Your task to perform on an android device: toggle data saver in the chrome app Image 0: 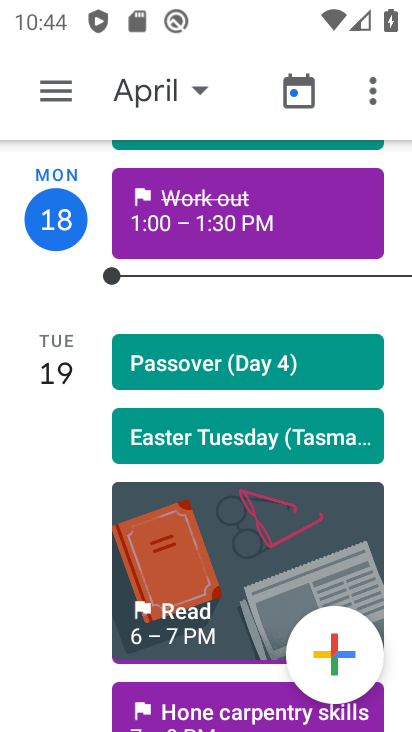
Step 0: press home button
Your task to perform on an android device: toggle data saver in the chrome app Image 1: 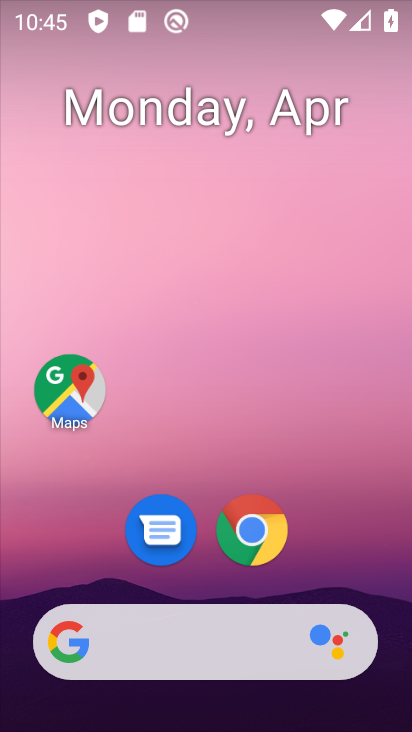
Step 1: drag from (335, 442) to (283, 69)
Your task to perform on an android device: toggle data saver in the chrome app Image 2: 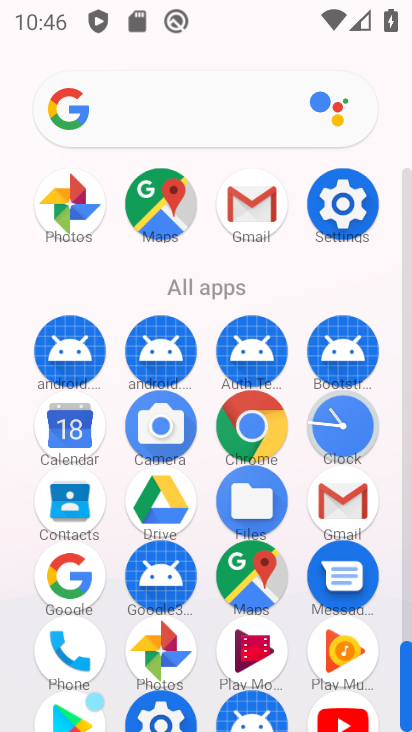
Step 2: click (242, 439)
Your task to perform on an android device: toggle data saver in the chrome app Image 3: 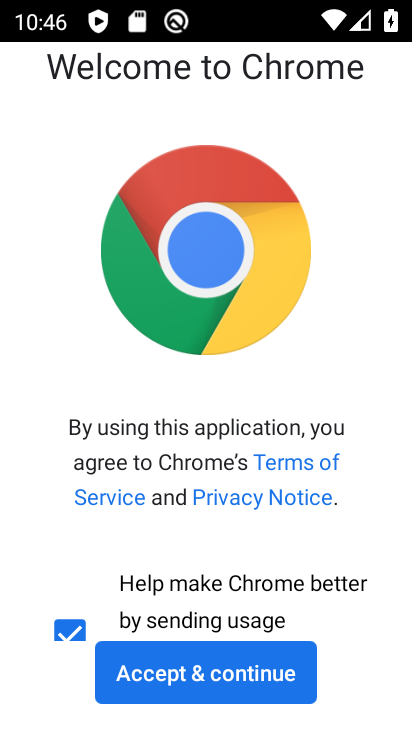
Step 3: click (211, 655)
Your task to perform on an android device: toggle data saver in the chrome app Image 4: 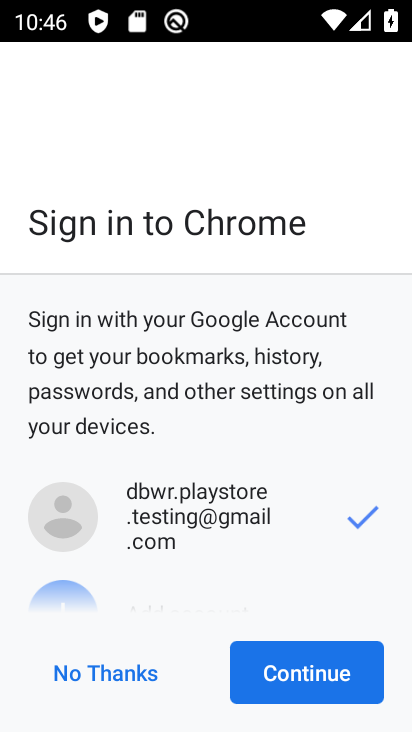
Step 4: click (267, 666)
Your task to perform on an android device: toggle data saver in the chrome app Image 5: 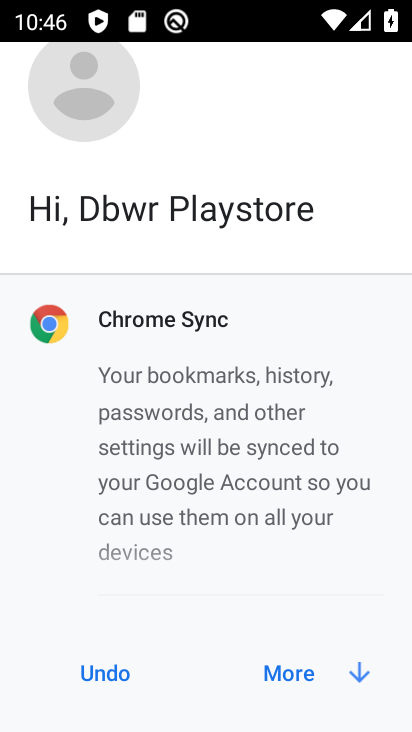
Step 5: click (267, 666)
Your task to perform on an android device: toggle data saver in the chrome app Image 6: 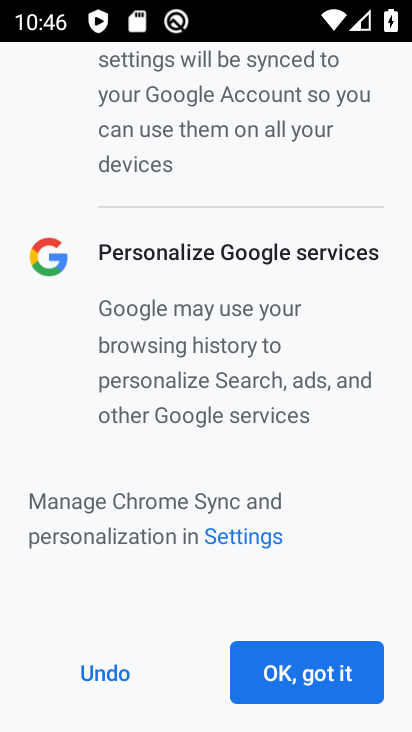
Step 6: click (267, 666)
Your task to perform on an android device: toggle data saver in the chrome app Image 7: 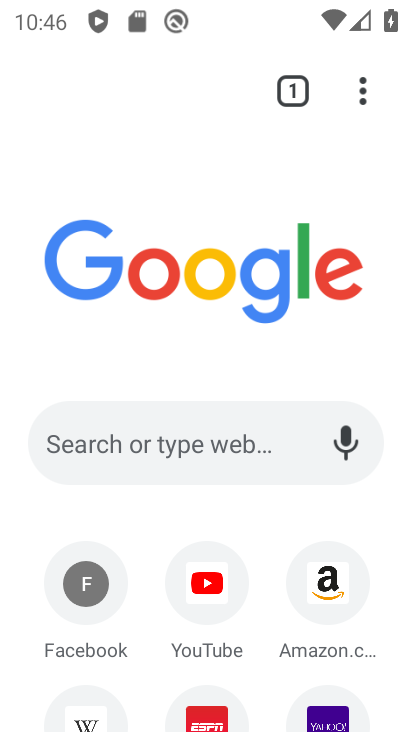
Step 7: click (357, 89)
Your task to perform on an android device: toggle data saver in the chrome app Image 8: 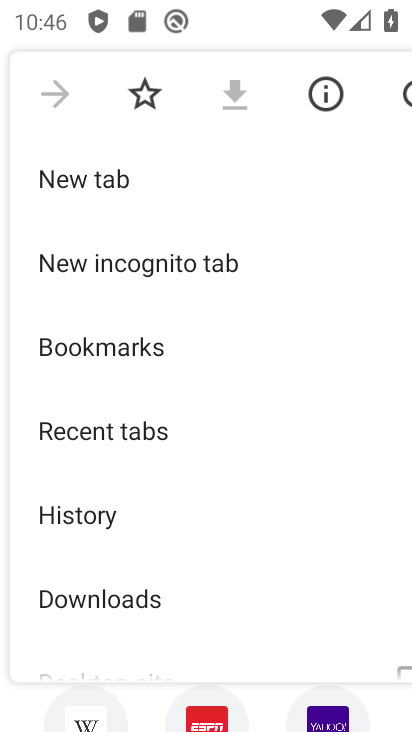
Step 8: drag from (146, 570) to (211, 189)
Your task to perform on an android device: toggle data saver in the chrome app Image 9: 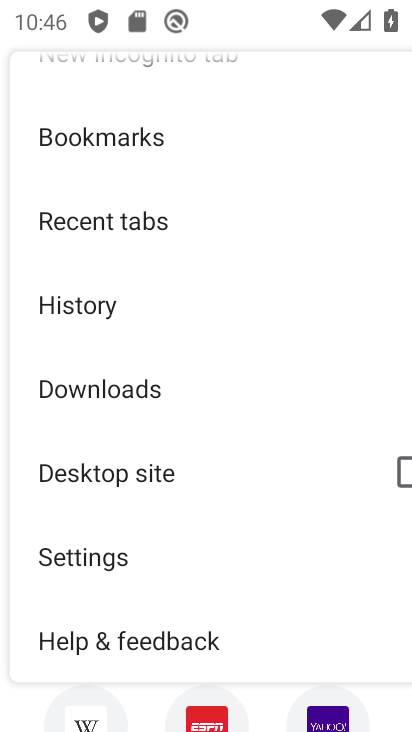
Step 9: click (188, 563)
Your task to perform on an android device: toggle data saver in the chrome app Image 10: 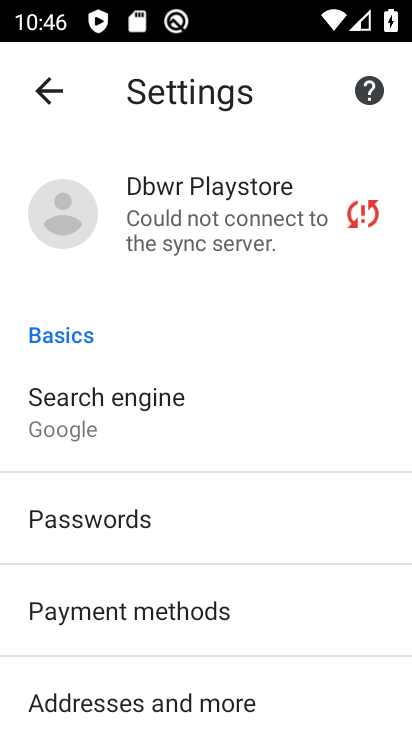
Step 10: drag from (222, 592) to (180, 164)
Your task to perform on an android device: toggle data saver in the chrome app Image 11: 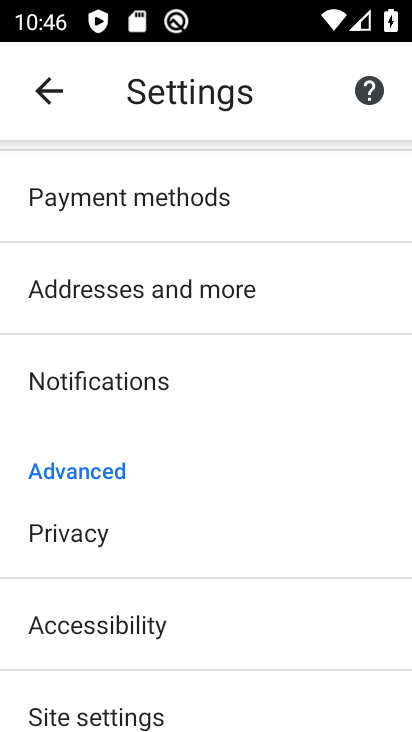
Step 11: drag from (165, 628) to (217, 233)
Your task to perform on an android device: toggle data saver in the chrome app Image 12: 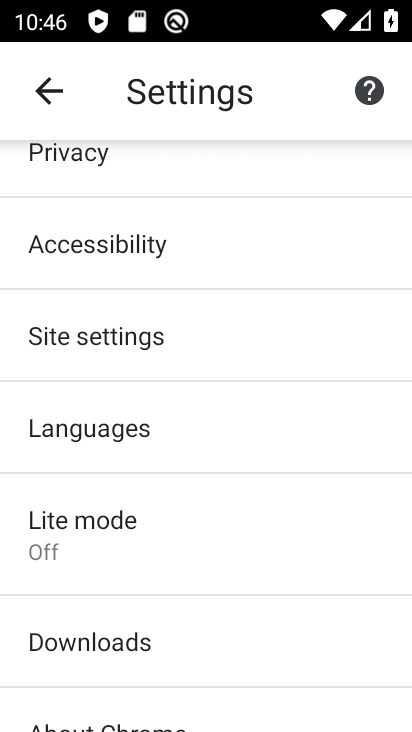
Step 12: click (211, 361)
Your task to perform on an android device: toggle data saver in the chrome app Image 13: 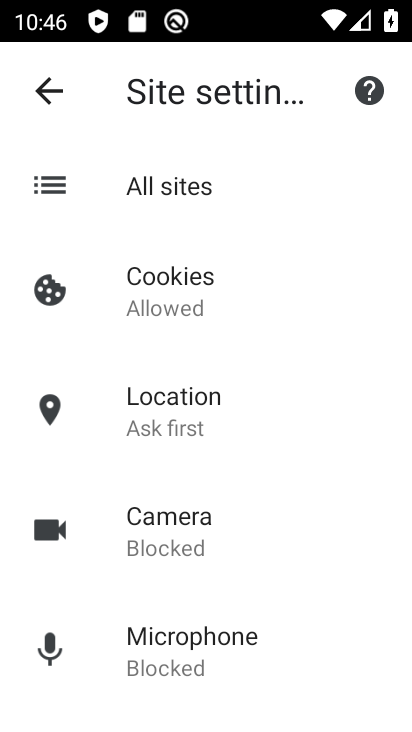
Step 13: press back button
Your task to perform on an android device: toggle data saver in the chrome app Image 14: 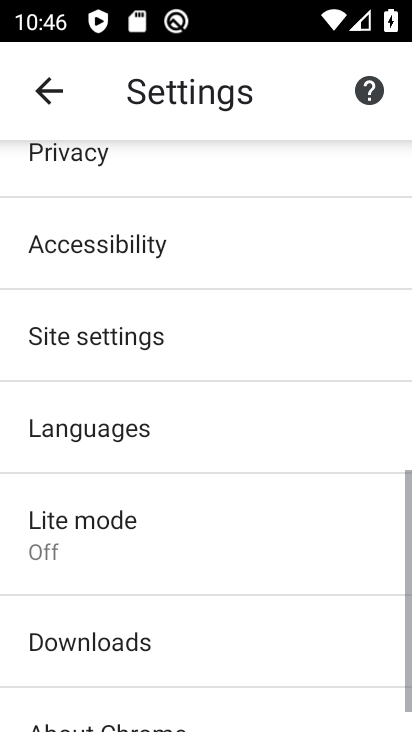
Step 14: click (213, 509)
Your task to perform on an android device: toggle data saver in the chrome app Image 15: 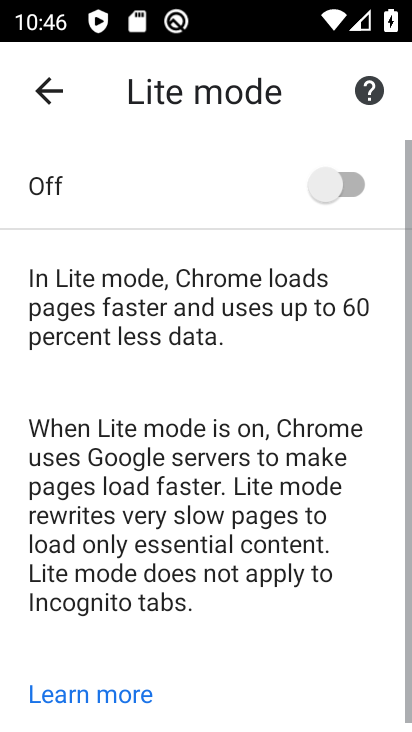
Step 15: click (350, 168)
Your task to perform on an android device: toggle data saver in the chrome app Image 16: 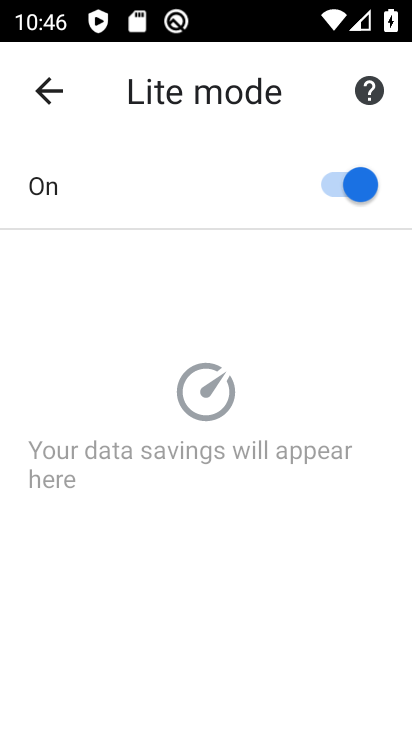
Step 16: task complete